Your task to perform on an android device: Open Google Chrome Image 0: 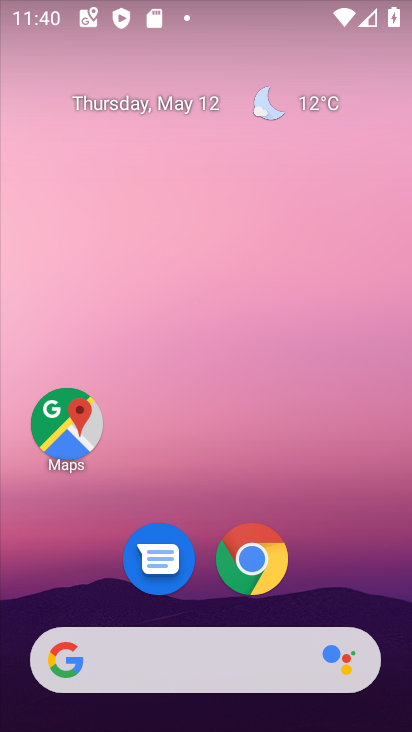
Step 0: click (249, 577)
Your task to perform on an android device: Open Google Chrome Image 1: 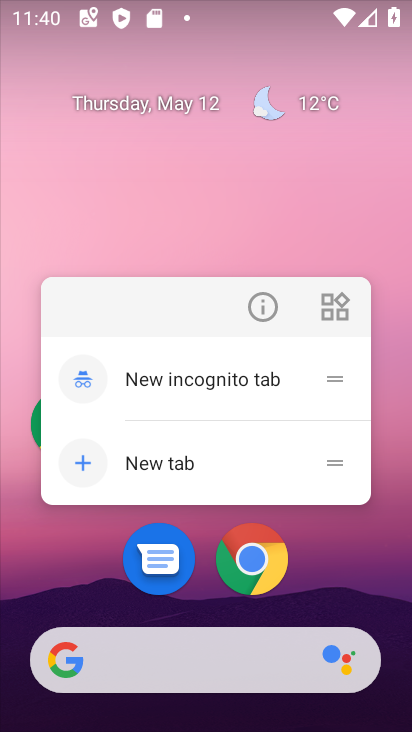
Step 1: click (246, 560)
Your task to perform on an android device: Open Google Chrome Image 2: 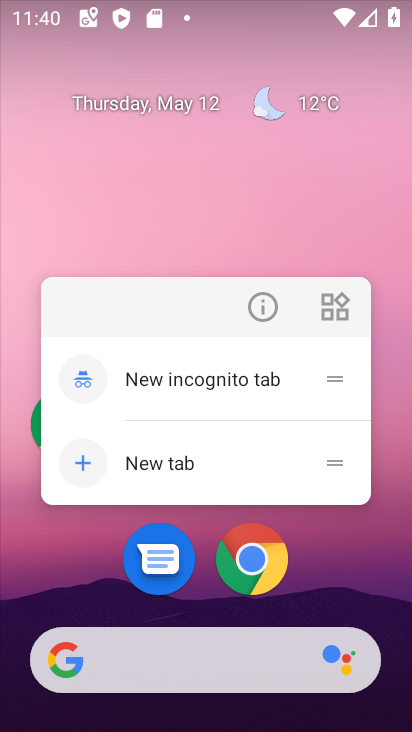
Step 2: click (243, 550)
Your task to perform on an android device: Open Google Chrome Image 3: 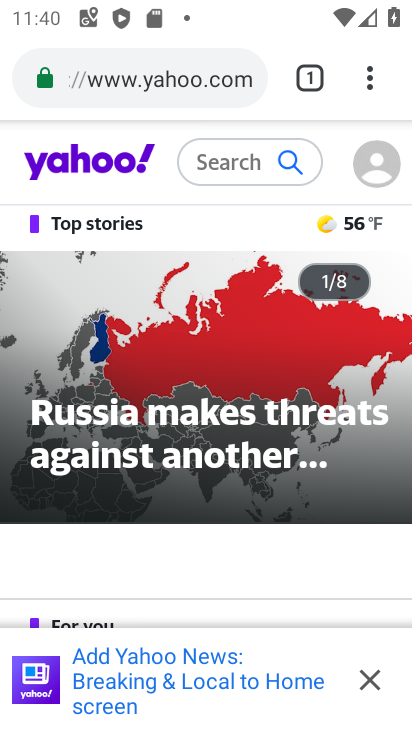
Step 3: click (371, 685)
Your task to perform on an android device: Open Google Chrome Image 4: 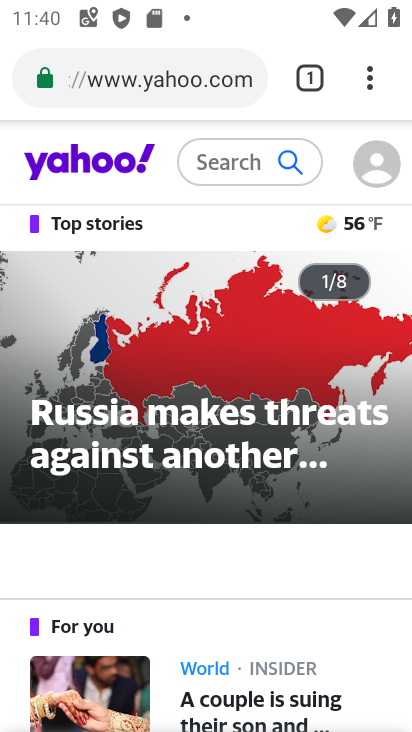
Step 4: task complete